Your task to perform on an android device: open chrome privacy settings Image 0: 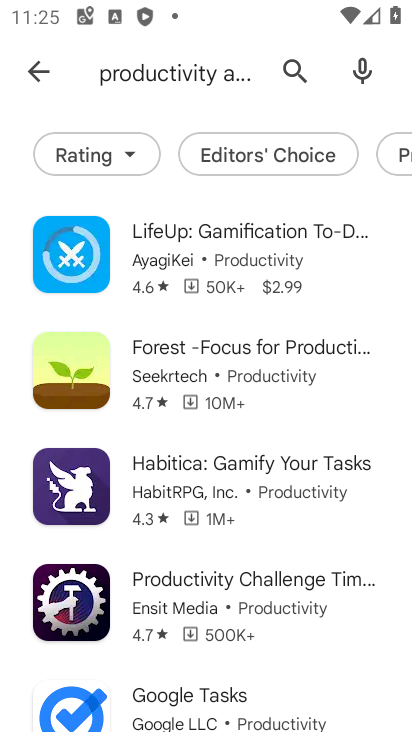
Step 0: task complete